Your task to perform on an android device: set the timer Image 0: 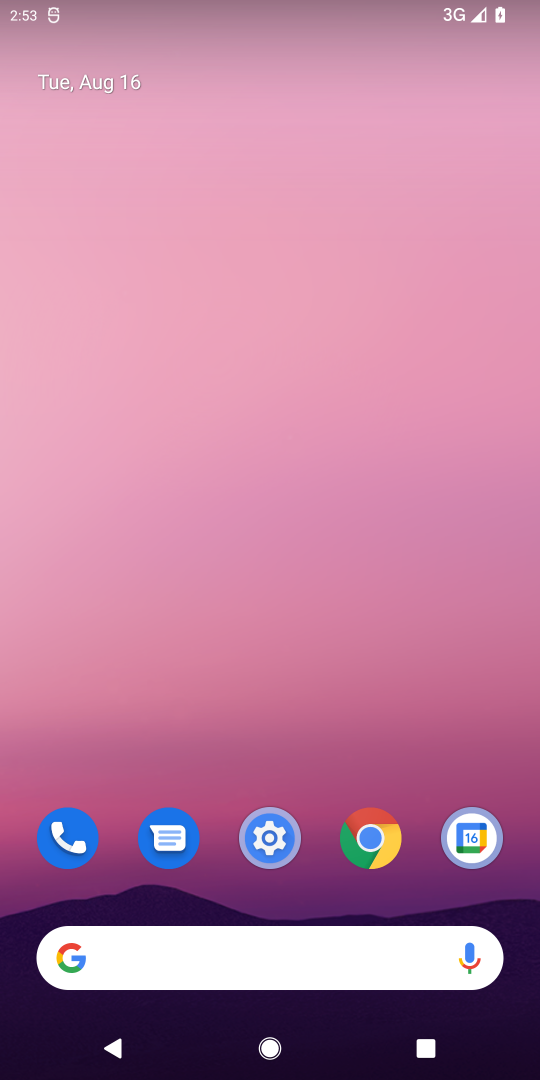
Step 0: press home button
Your task to perform on an android device: set the timer Image 1: 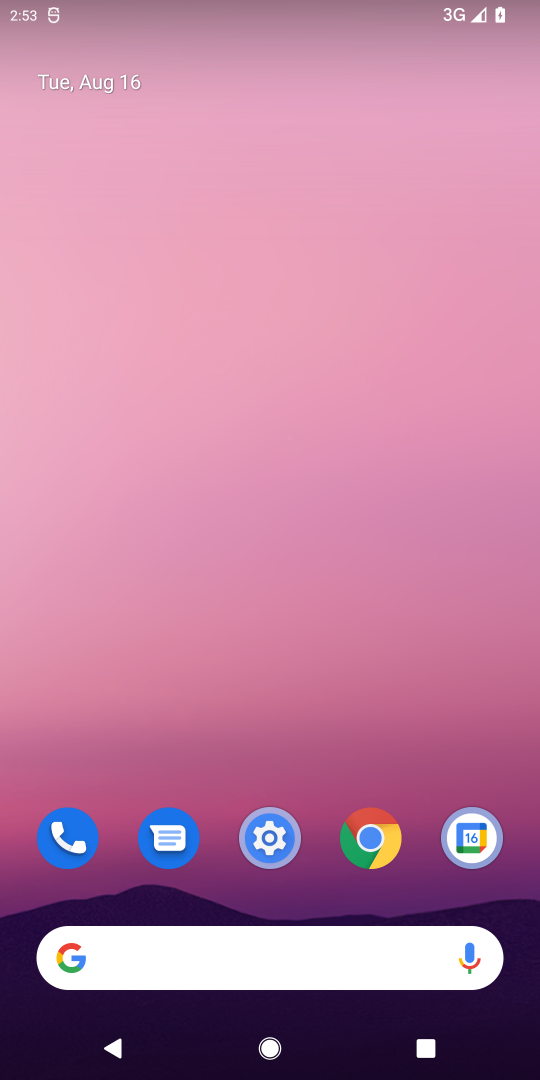
Step 1: drag from (302, 744) to (347, 28)
Your task to perform on an android device: set the timer Image 2: 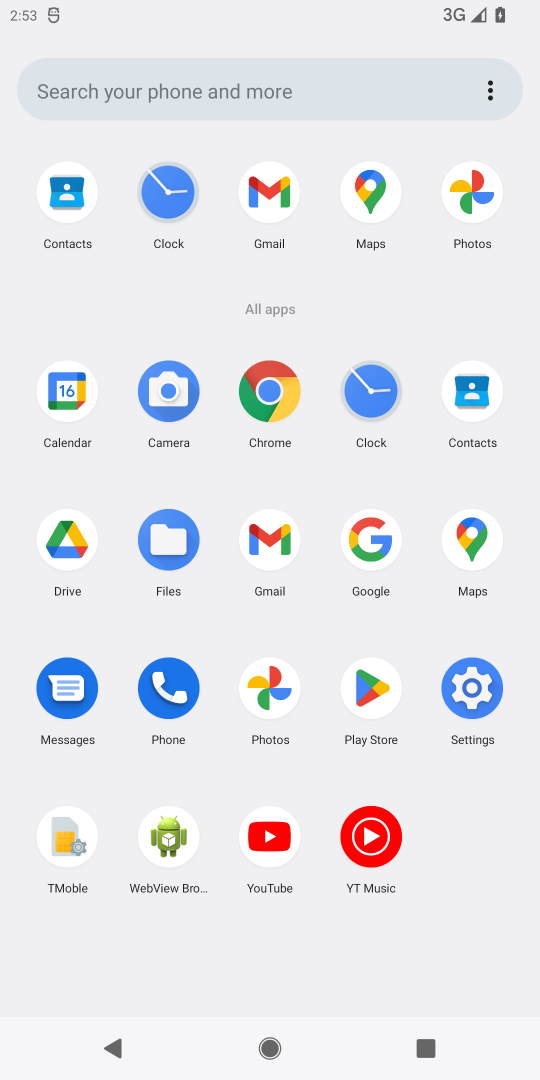
Step 2: click (387, 373)
Your task to perform on an android device: set the timer Image 3: 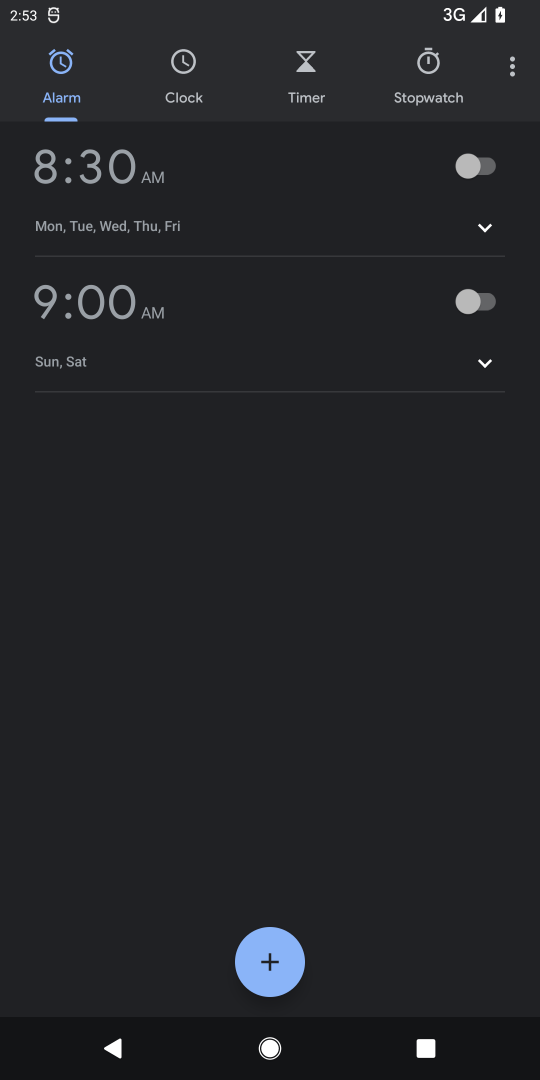
Step 3: click (329, 74)
Your task to perform on an android device: set the timer Image 4: 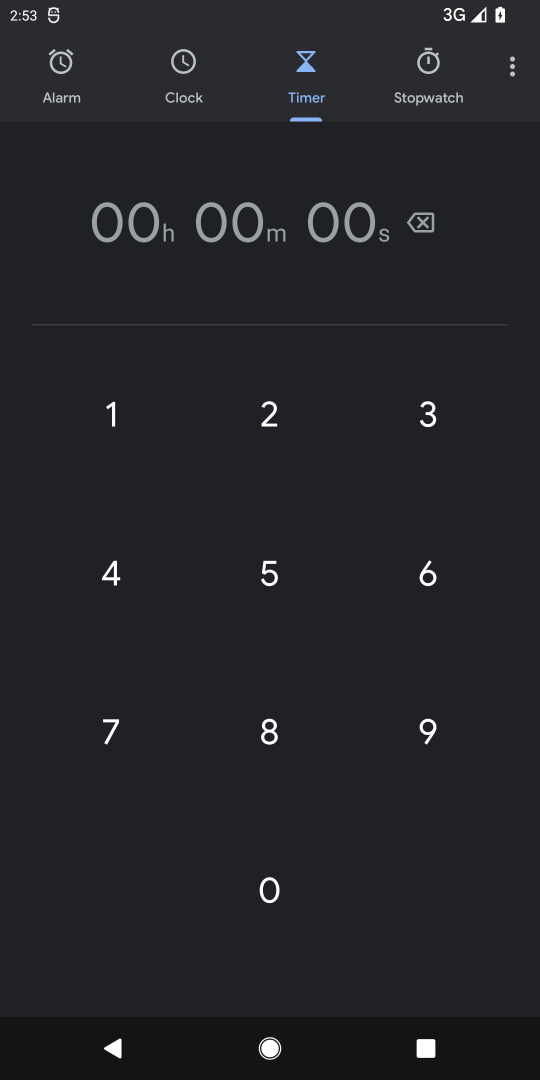
Step 4: task complete